Your task to perform on an android device: Check the weather Image 0: 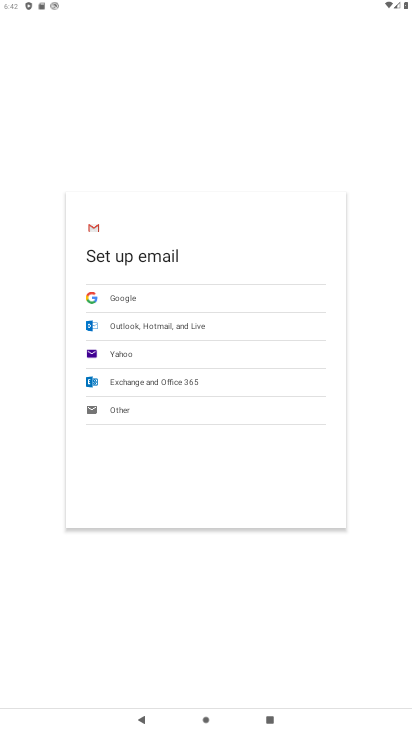
Step 0: press home button
Your task to perform on an android device: Check the weather Image 1: 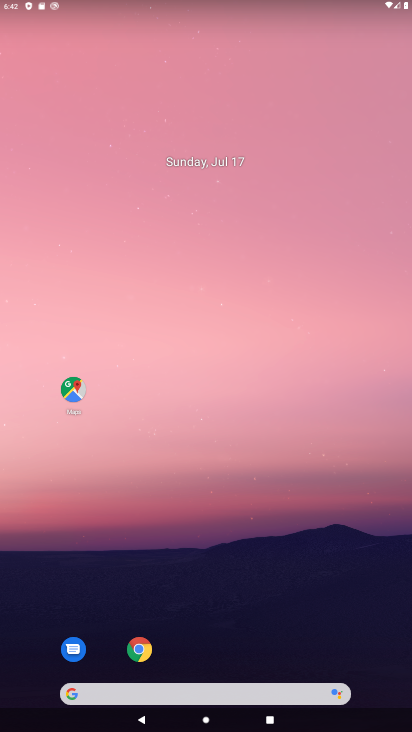
Step 1: click (176, 692)
Your task to perform on an android device: Check the weather Image 2: 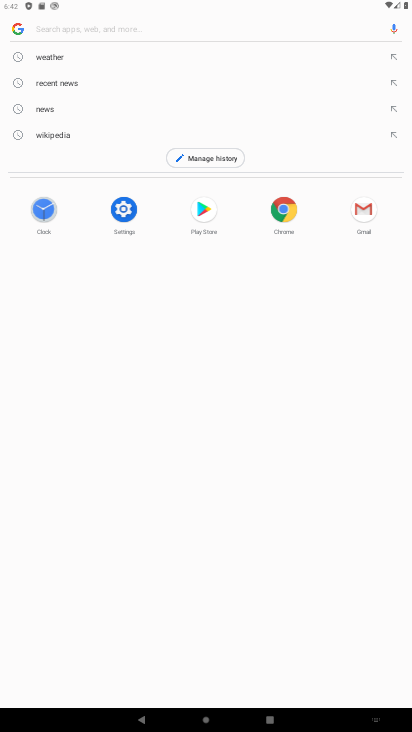
Step 2: click (55, 56)
Your task to perform on an android device: Check the weather Image 3: 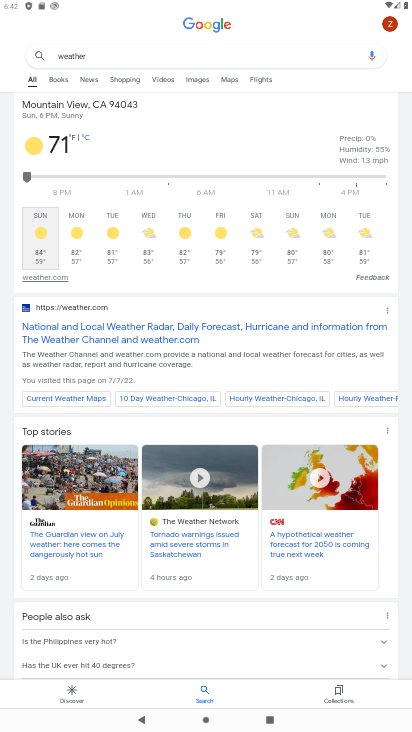
Step 3: task complete